Your task to perform on an android device: What's on my calendar tomorrow? Image 0: 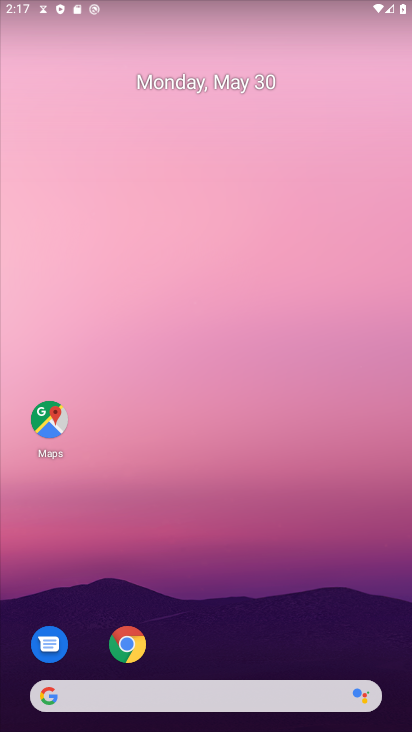
Step 0: drag from (306, 652) to (270, 226)
Your task to perform on an android device: What's on my calendar tomorrow? Image 1: 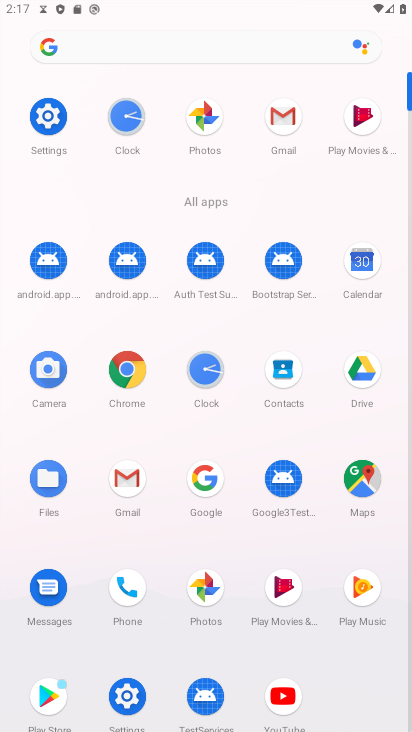
Step 1: click (352, 268)
Your task to perform on an android device: What's on my calendar tomorrow? Image 2: 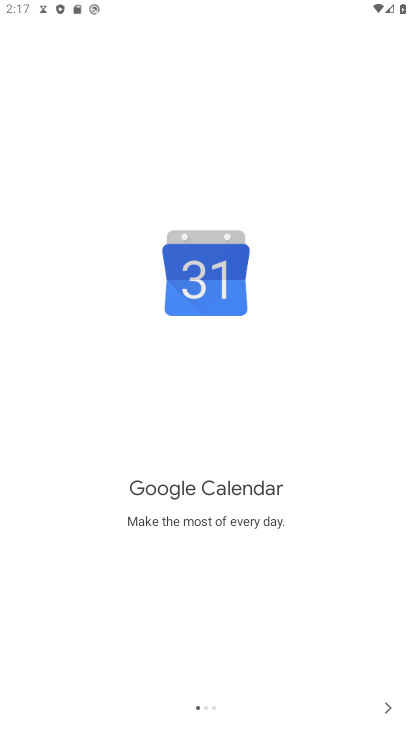
Step 2: click (385, 707)
Your task to perform on an android device: What's on my calendar tomorrow? Image 3: 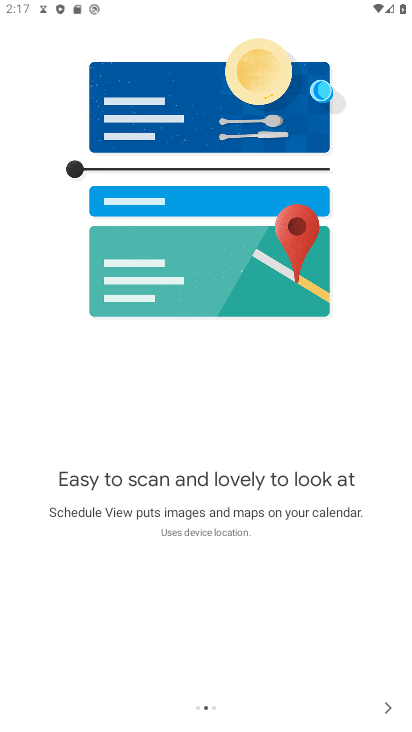
Step 3: click (384, 705)
Your task to perform on an android device: What's on my calendar tomorrow? Image 4: 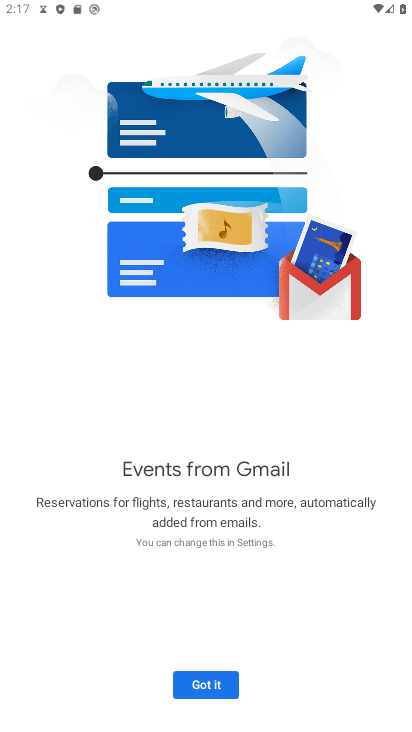
Step 4: click (202, 675)
Your task to perform on an android device: What's on my calendar tomorrow? Image 5: 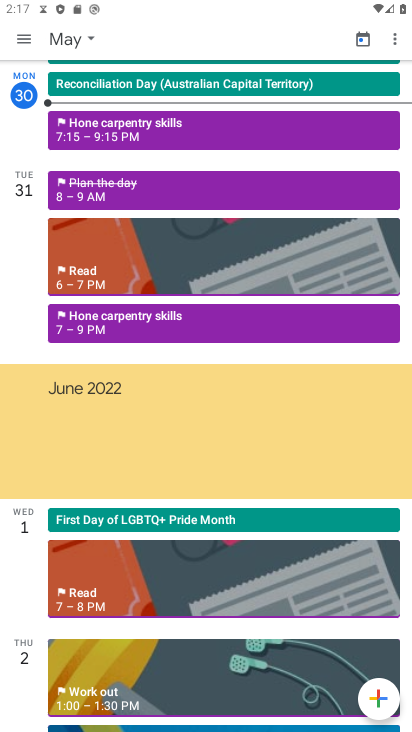
Step 5: task complete